Your task to perform on an android device: Go to notification settings Image 0: 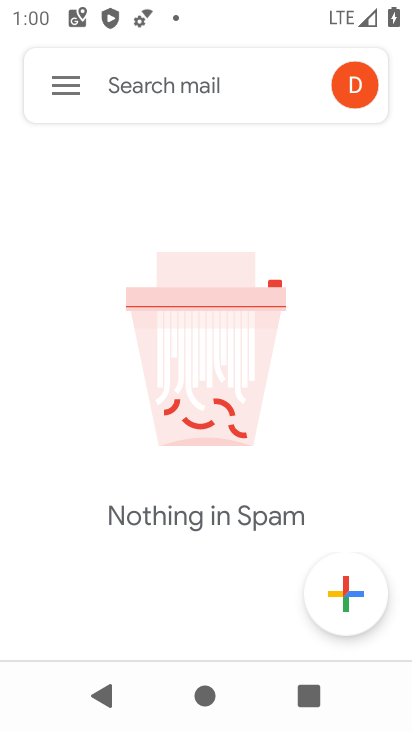
Step 0: press home button
Your task to perform on an android device: Go to notification settings Image 1: 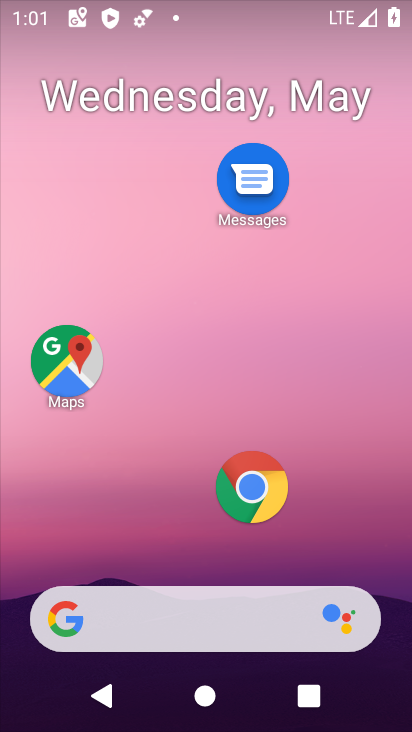
Step 1: drag from (140, 541) to (262, 16)
Your task to perform on an android device: Go to notification settings Image 2: 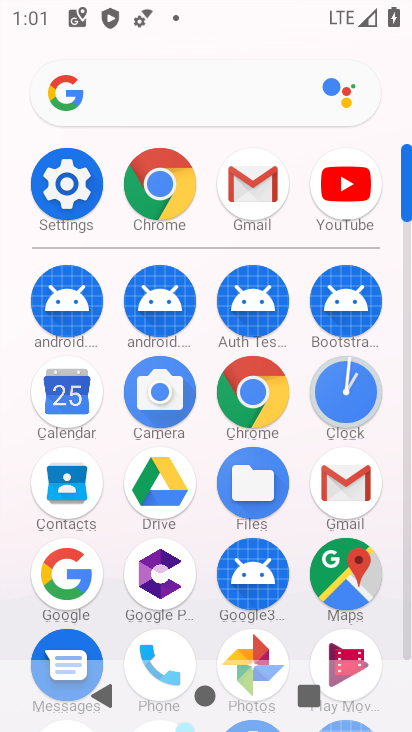
Step 2: click (78, 213)
Your task to perform on an android device: Go to notification settings Image 3: 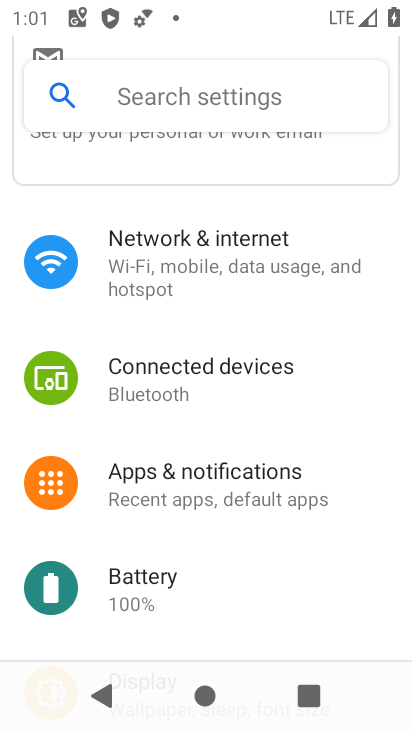
Step 3: click (213, 471)
Your task to perform on an android device: Go to notification settings Image 4: 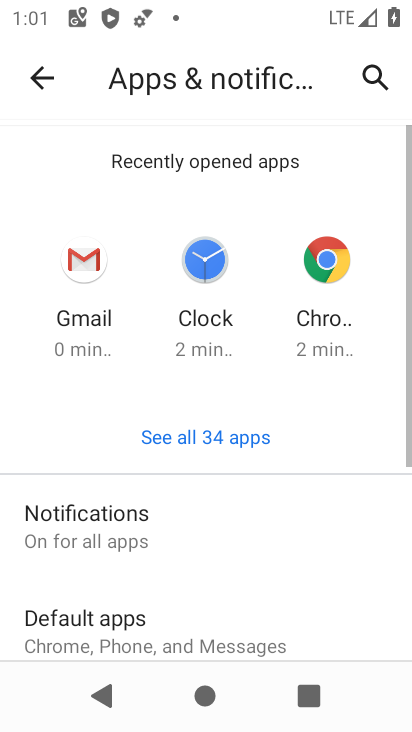
Step 4: drag from (178, 522) to (213, 336)
Your task to perform on an android device: Go to notification settings Image 5: 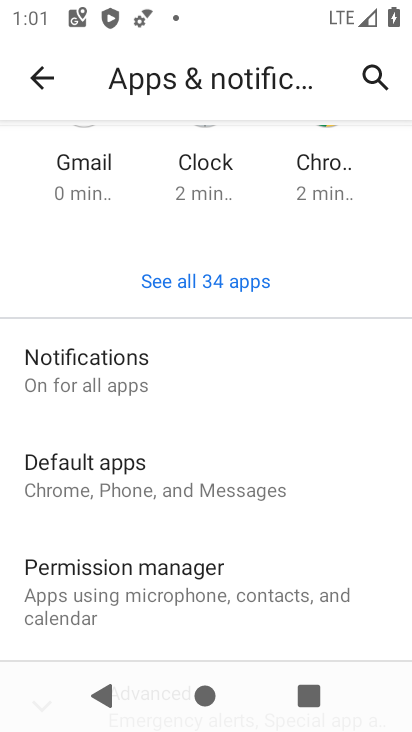
Step 5: click (101, 388)
Your task to perform on an android device: Go to notification settings Image 6: 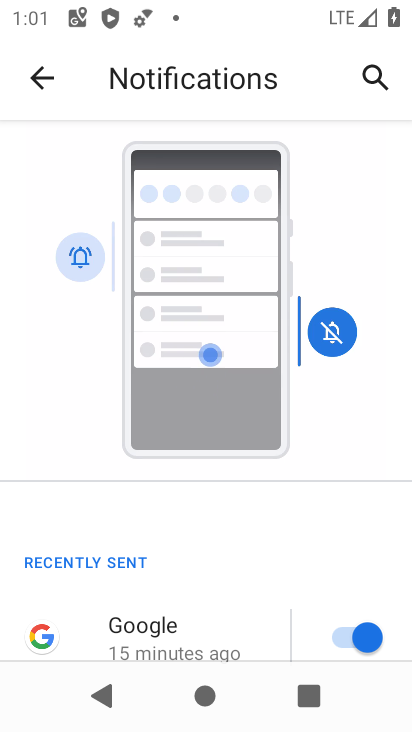
Step 6: task complete